Your task to perform on an android device: Show me the alarms in the clock app Image 0: 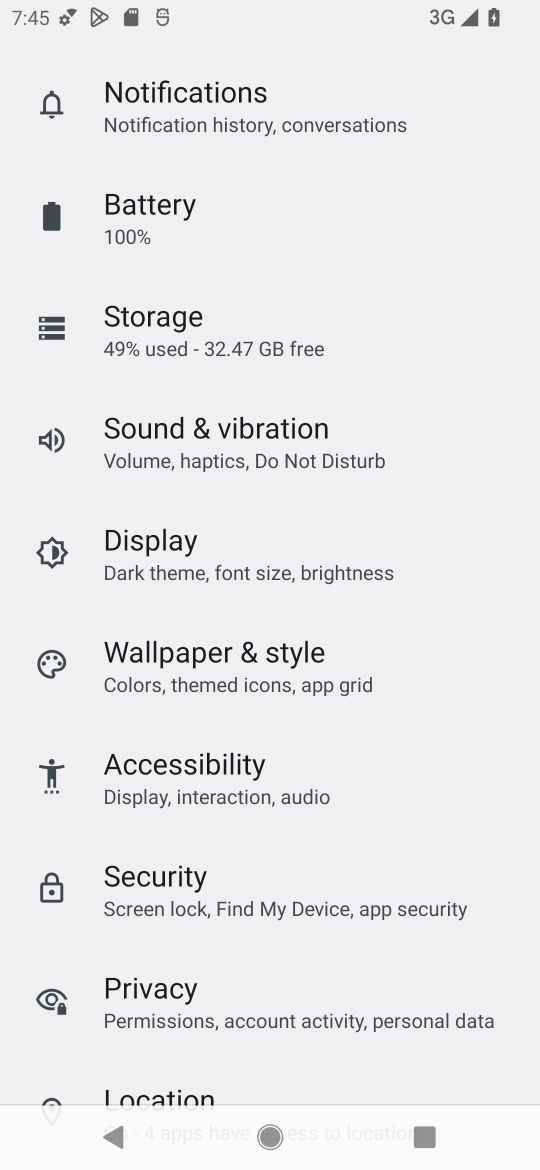
Step 0: click (267, 1144)
Your task to perform on an android device: Show me the alarms in the clock app Image 1: 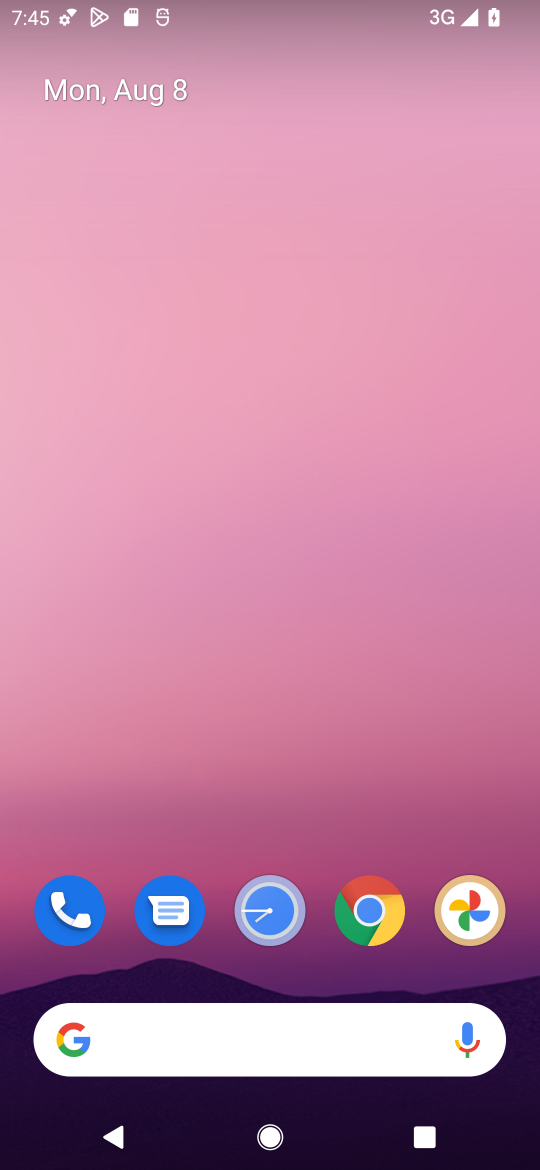
Step 1: click (267, 914)
Your task to perform on an android device: Show me the alarms in the clock app Image 2: 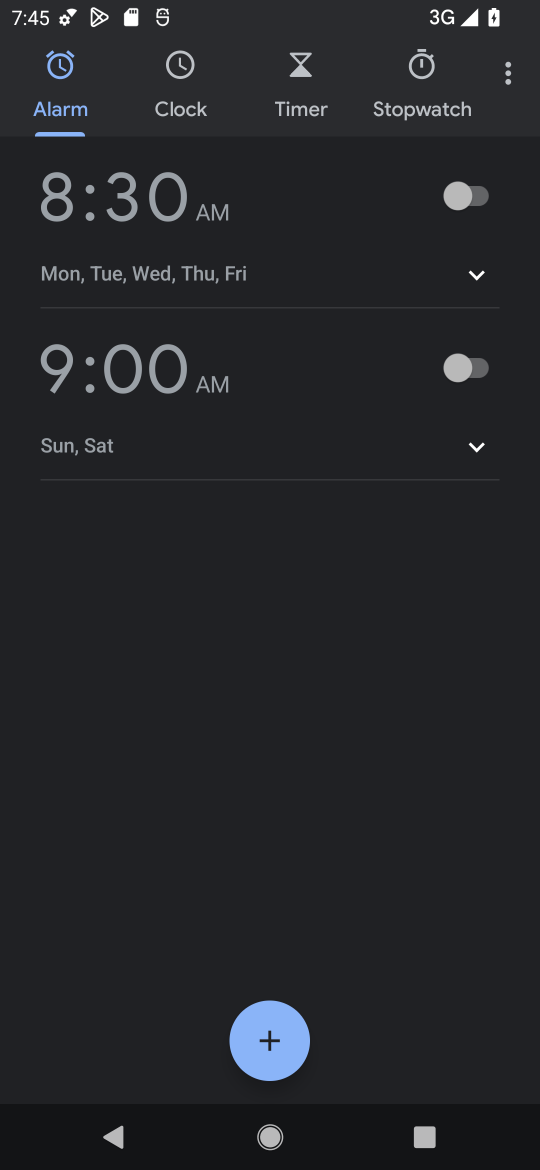
Step 2: click (206, 914)
Your task to perform on an android device: Show me the alarms in the clock app Image 3: 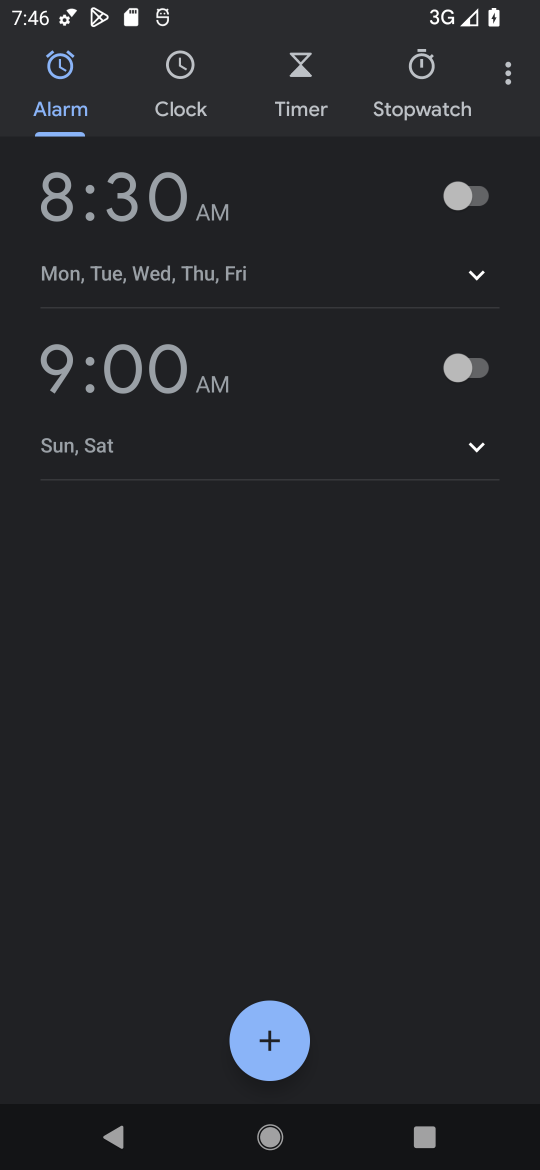
Step 3: task complete